Your task to perform on an android device: star an email in the gmail app Image 0: 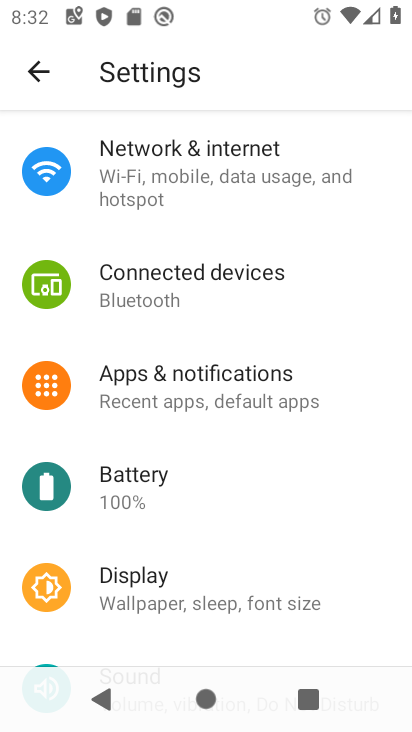
Step 0: press home button
Your task to perform on an android device: star an email in the gmail app Image 1: 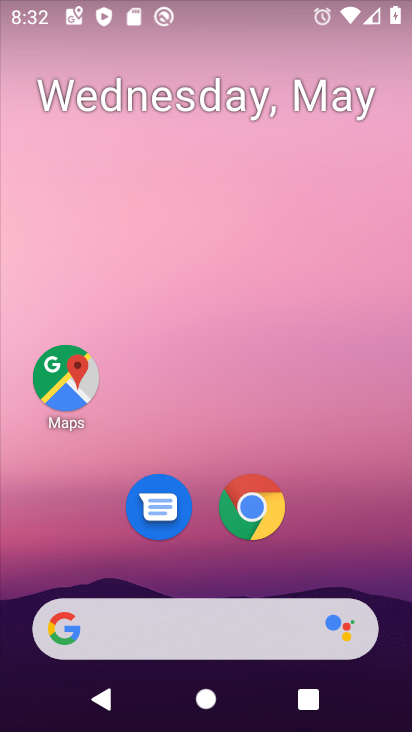
Step 1: drag from (333, 544) to (328, 213)
Your task to perform on an android device: star an email in the gmail app Image 2: 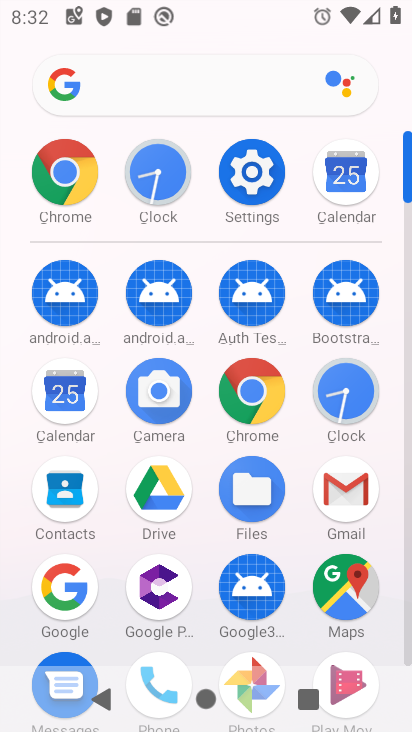
Step 2: click (332, 487)
Your task to perform on an android device: star an email in the gmail app Image 3: 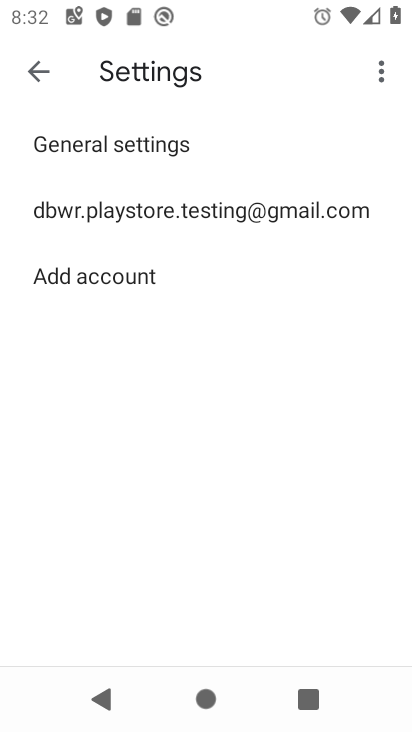
Step 3: click (43, 69)
Your task to perform on an android device: star an email in the gmail app Image 4: 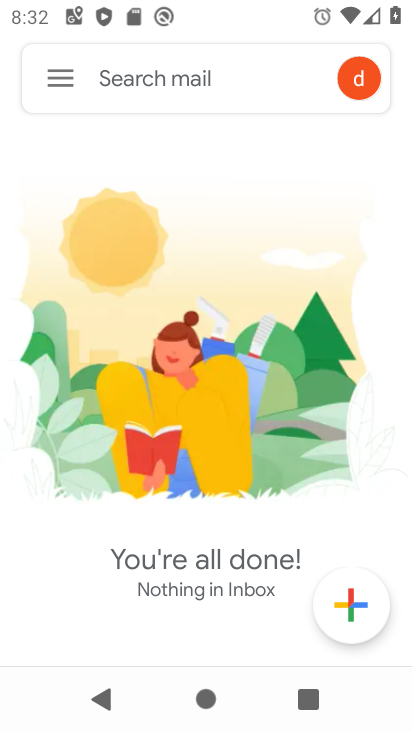
Step 4: click (45, 69)
Your task to perform on an android device: star an email in the gmail app Image 5: 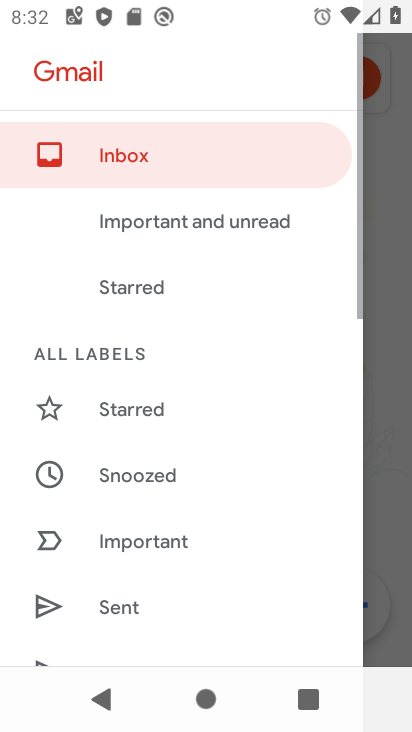
Step 5: click (130, 287)
Your task to perform on an android device: star an email in the gmail app Image 6: 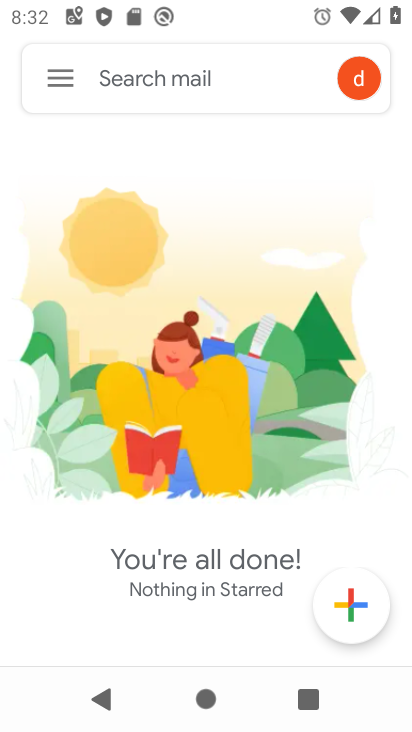
Step 6: click (67, 71)
Your task to perform on an android device: star an email in the gmail app Image 7: 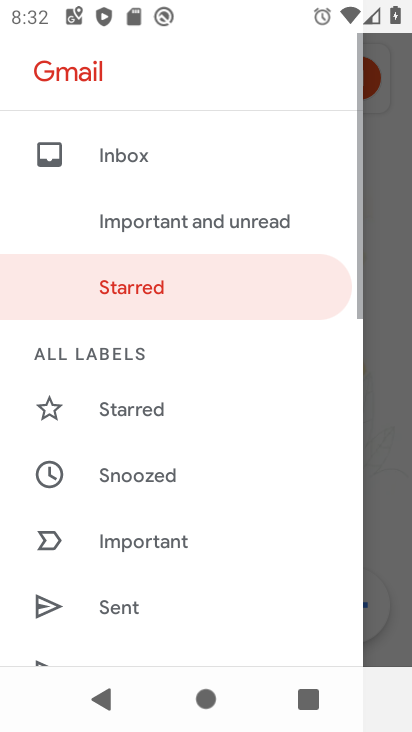
Step 7: click (148, 295)
Your task to perform on an android device: star an email in the gmail app Image 8: 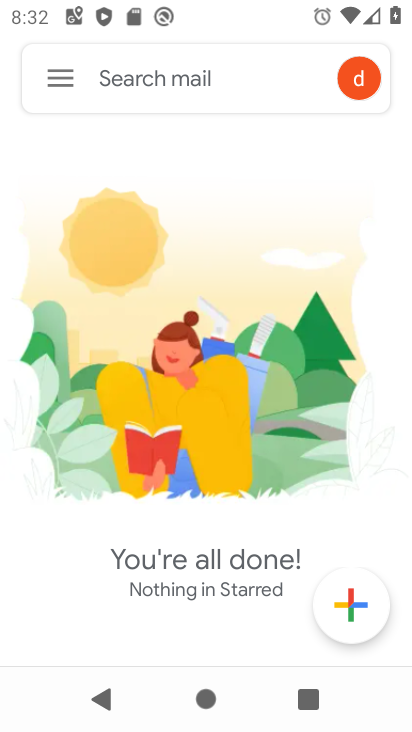
Step 8: task complete